Your task to perform on an android device: change the clock display to show seconds Image 0: 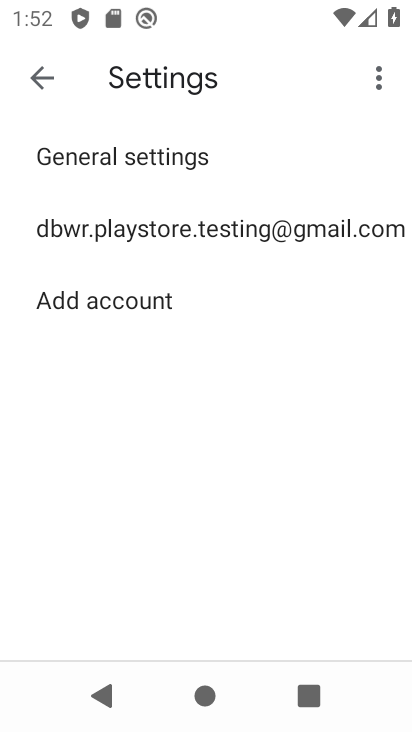
Step 0: press home button
Your task to perform on an android device: change the clock display to show seconds Image 1: 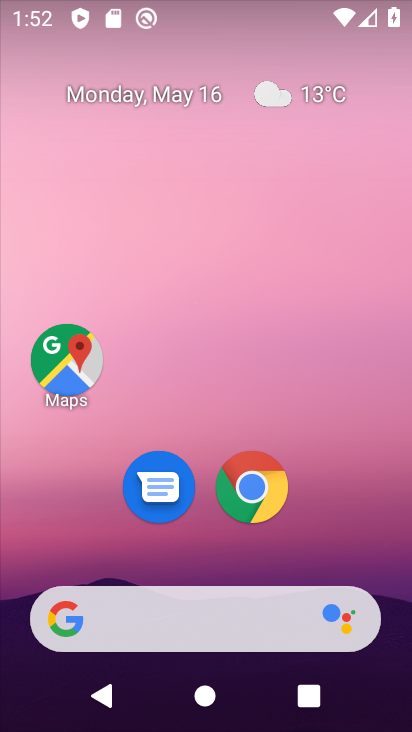
Step 1: drag from (353, 490) to (42, 46)
Your task to perform on an android device: change the clock display to show seconds Image 2: 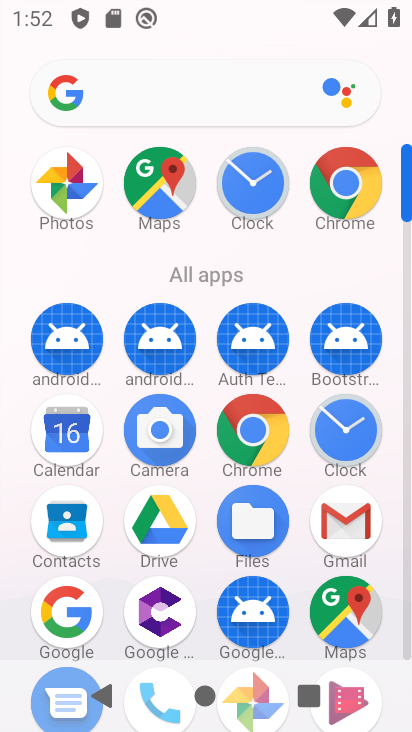
Step 2: click (249, 205)
Your task to perform on an android device: change the clock display to show seconds Image 3: 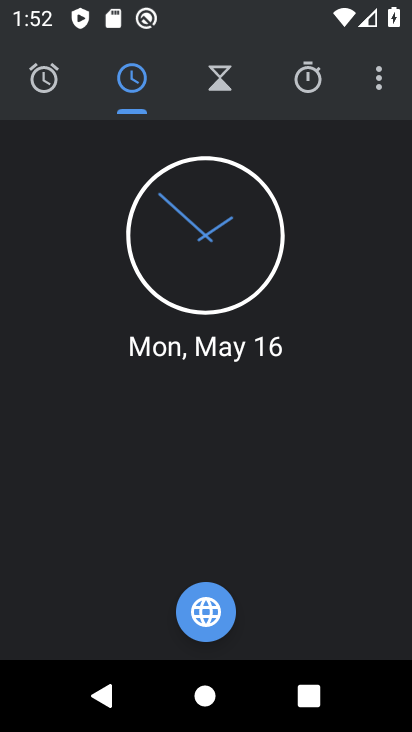
Step 3: click (377, 84)
Your task to perform on an android device: change the clock display to show seconds Image 4: 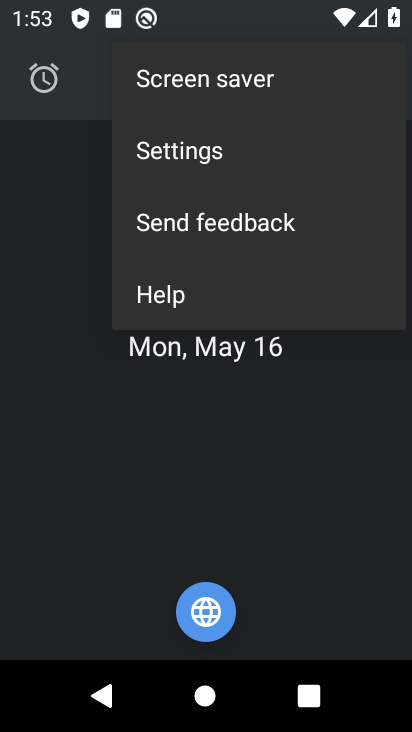
Step 4: click (169, 148)
Your task to perform on an android device: change the clock display to show seconds Image 5: 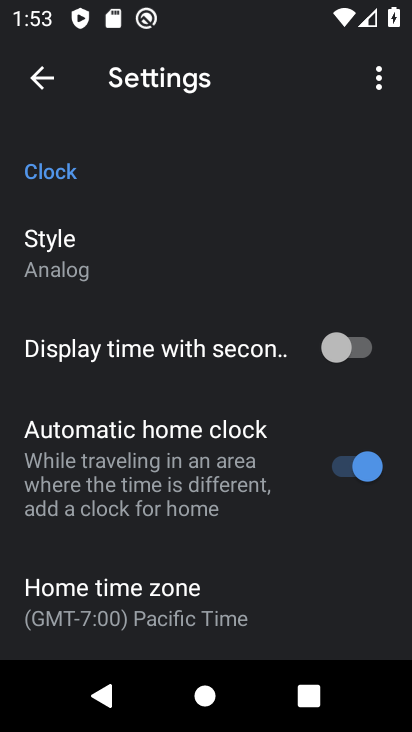
Step 5: click (354, 348)
Your task to perform on an android device: change the clock display to show seconds Image 6: 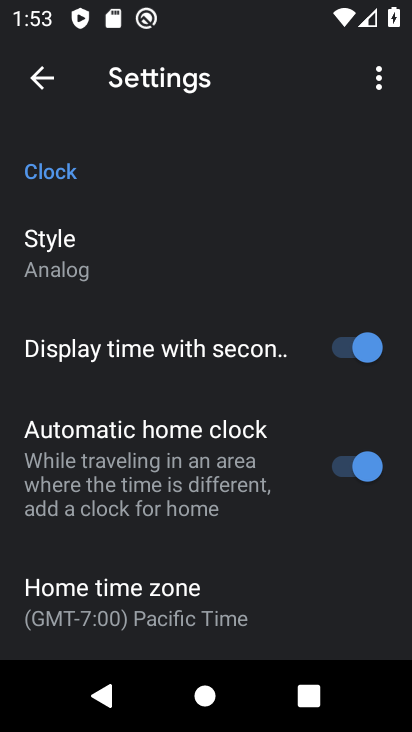
Step 6: task complete